Your task to perform on an android device: turn on improve location accuracy Image 0: 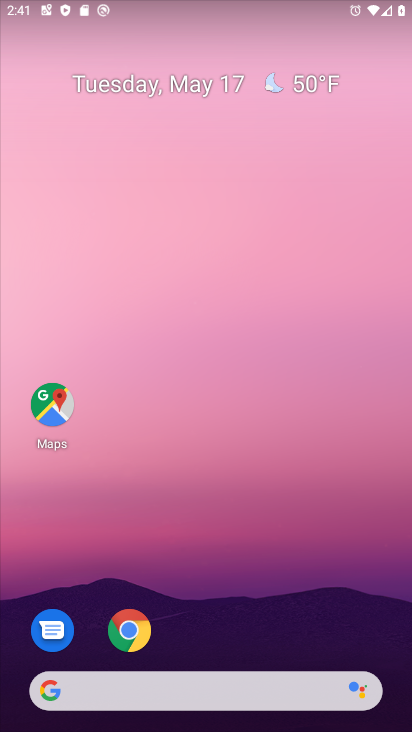
Step 0: drag from (198, 623) to (259, 331)
Your task to perform on an android device: turn on improve location accuracy Image 1: 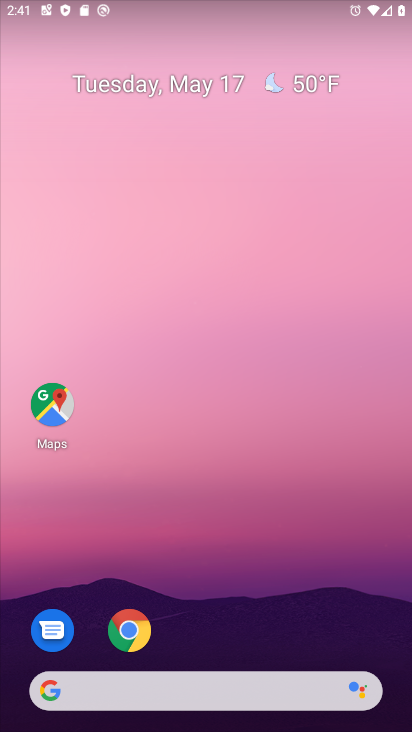
Step 1: drag from (234, 671) to (283, 189)
Your task to perform on an android device: turn on improve location accuracy Image 2: 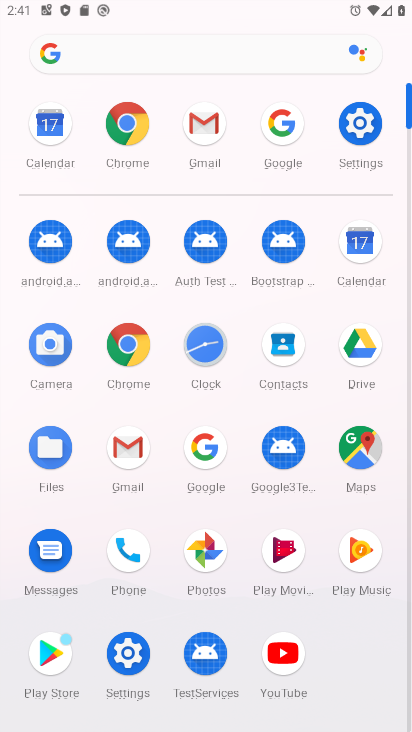
Step 2: click (358, 123)
Your task to perform on an android device: turn on improve location accuracy Image 3: 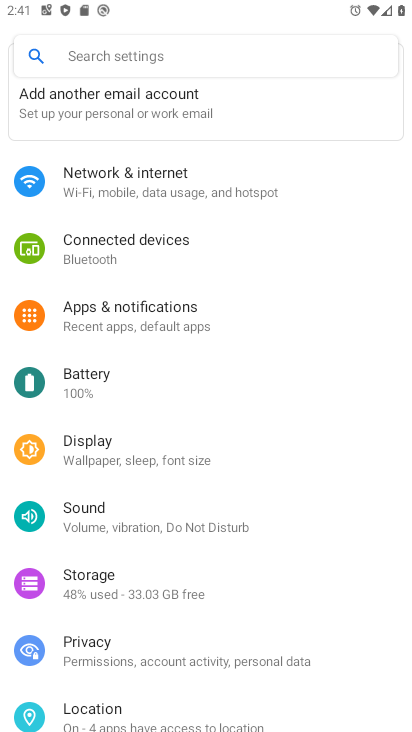
Step 3: click (138, 723)
Your task to perform on an android device: turn on improve location accuracy Image 4: 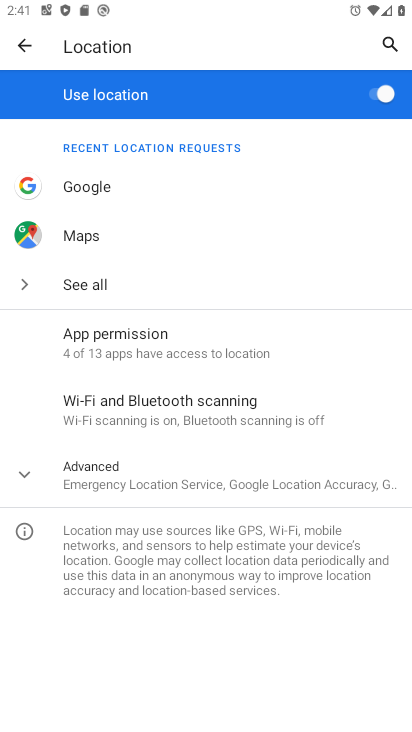
Step 4: click (139, 480)
Your task to perform on an android device: turn on improve location accuracy Image 5: 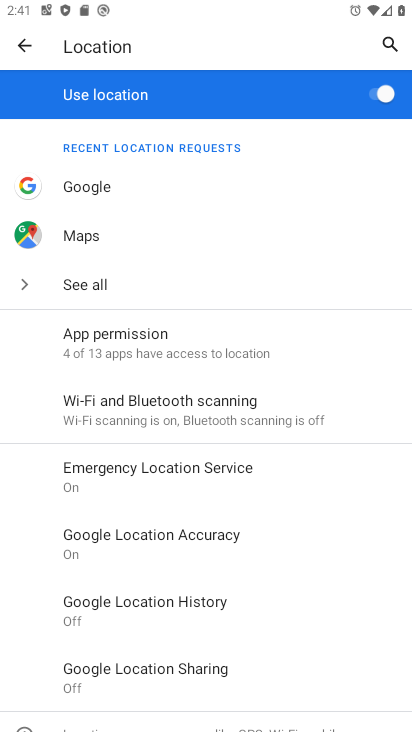
Step 5: click (127, 540)
Your task to perform on an android device: turn on improve location accuracy Image 6: 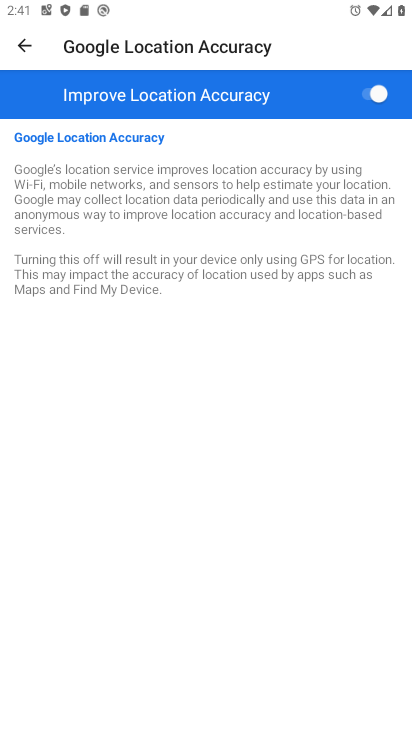
Step 6: task complete